Your task to perform on an android device: see tabs open on other devices in the chrome app Image 0: 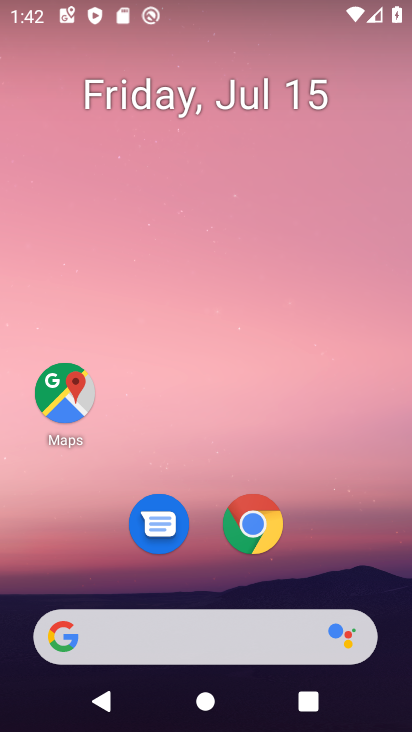
Step 0: press home button
Your task to perform on an android device: see tabs open on other devices in the chrome app Image 1: 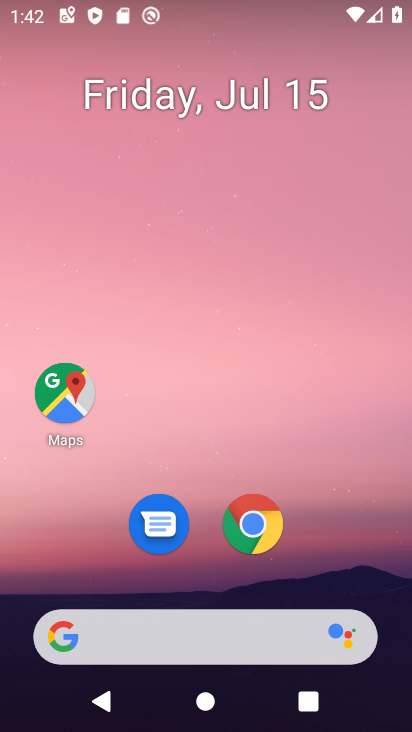
Step 1: click (264, 529)
Your task to perform on an android device: see tabs open on other devices in the chrome app Image 2: 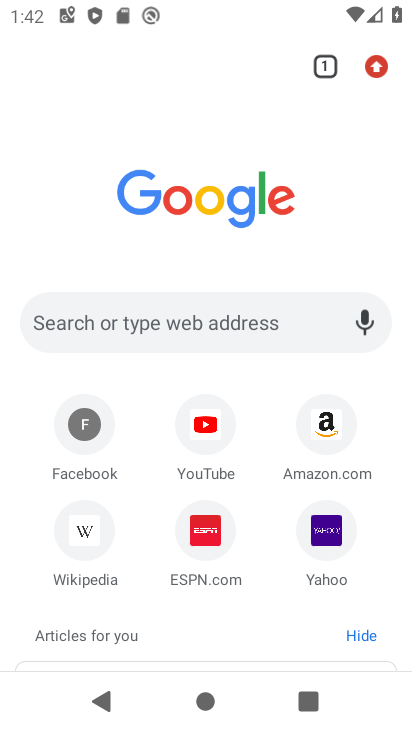
Step 2: click (378, 73)
Your task to perform on an android device: see tabs open on other devices in the chrome app Image 3: 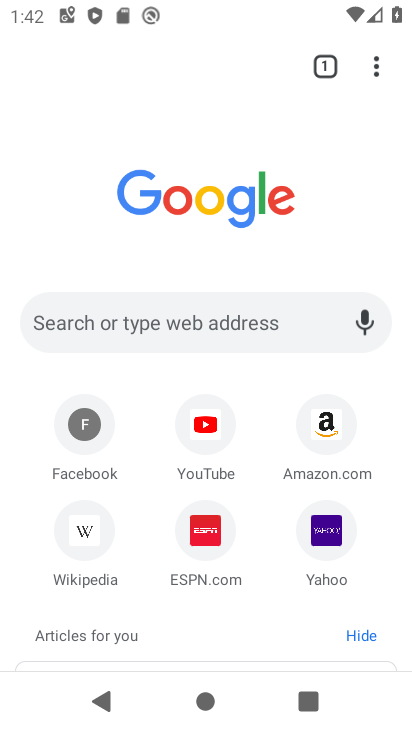
Step 3: task complete